Your task to perform on an android device: turn off javascript in the chrome app Image 0: 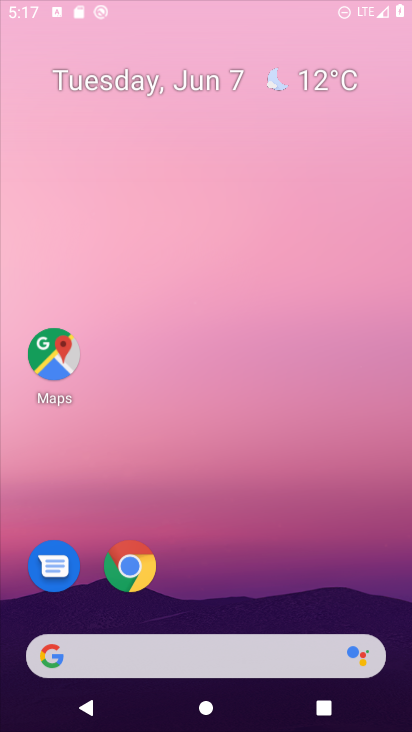
Step 0: drag from (324, 618) to (331, 242)
Your task to perform on an android device: turn off javascript in the chrome app Image 1: 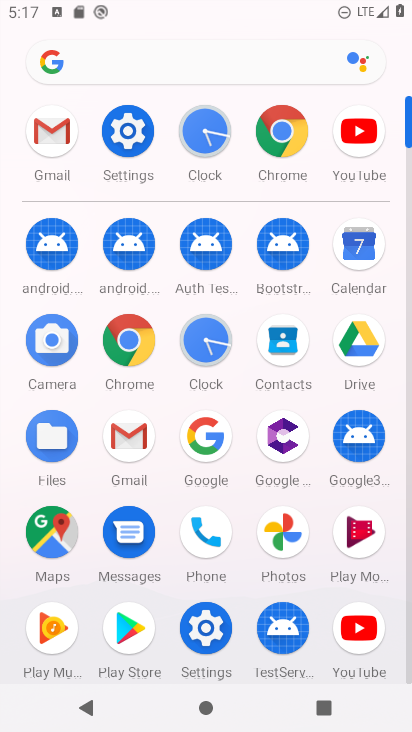
Step 1: click (112, 329)
Your task to perform on an android device: turn off javascript in the chrome app Image 2: 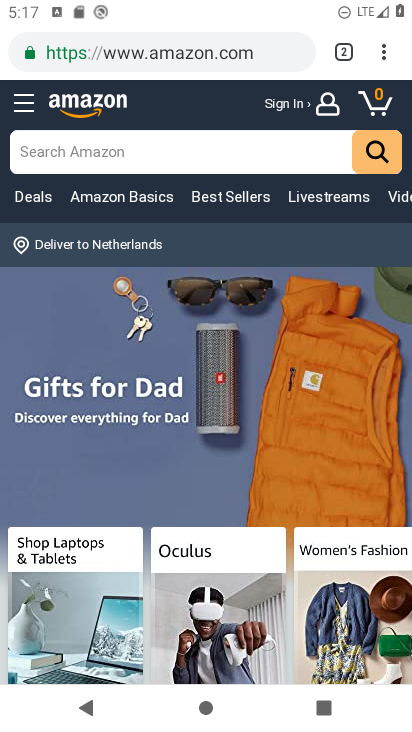
Step 2: click (391, 56)
Your task to perform on an android device: turn off javascript in the chrome app Image 3: 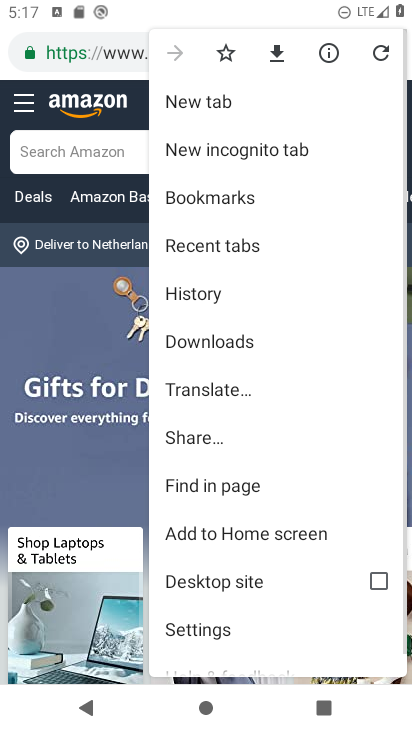
Step 3: click (273, 635)
Your task to perform on an android device: turn off javascript in the chrome app Image 4: 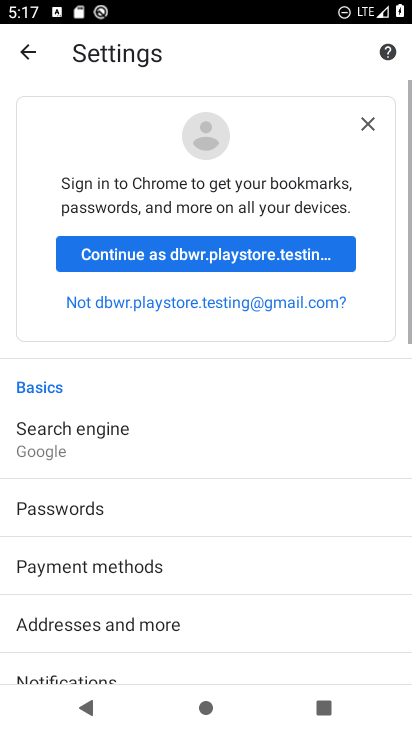
Step 4: drag from (273, 635) to (269, 217)
Your task to perform on an android device: turn off javascript in the chrome app Image 5: 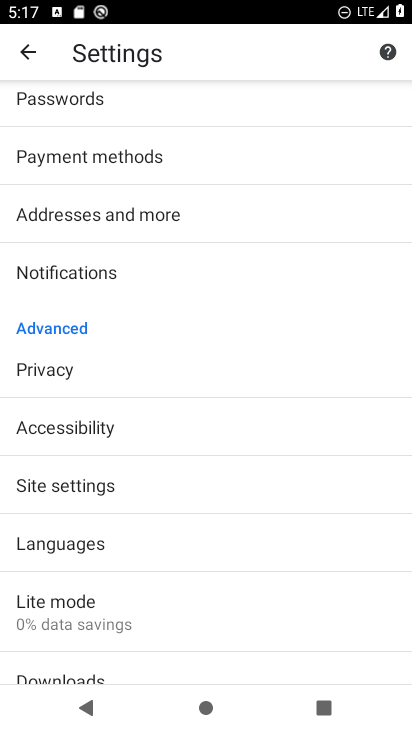
Step 5: click (136, 502)
Your task to perform on an android device: turn off javascript in the chrome app Image 6: 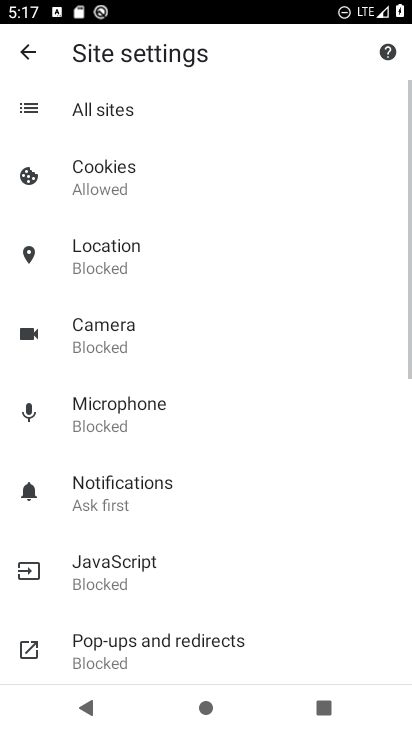
Step 6: click (152, 557)
Your task to perform on an android device: turn off javascript in the chrome app Image 7: 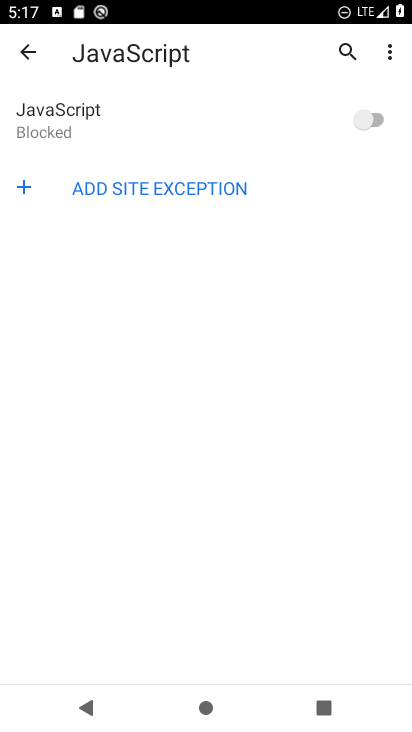
Step 7: task complete